Your task to perform on an android device: Go to privacy settings Image 0: 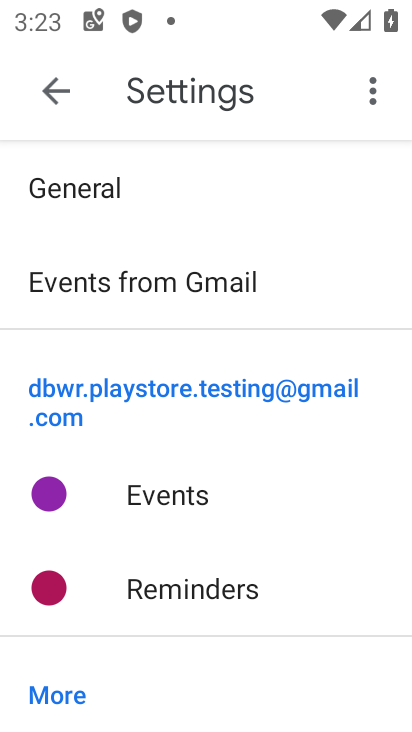
Step 0: press home button
Your task to perform on an android device: Go to privacy settings Image 1: 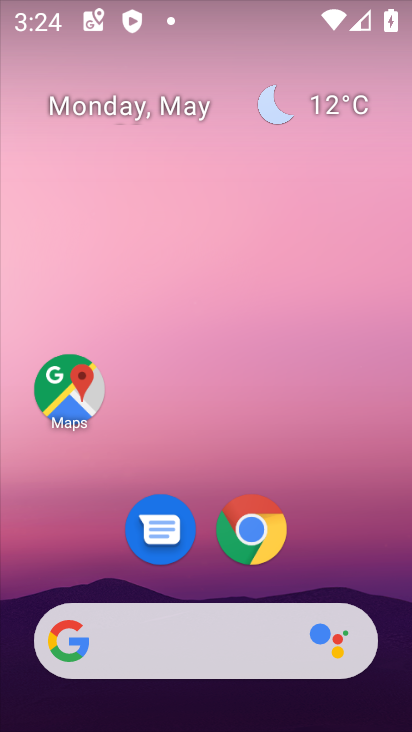
Step 1: drag from (330, 492) to (301, 7)
Your task to perform on an android device: Go to privacy settings Image 2: 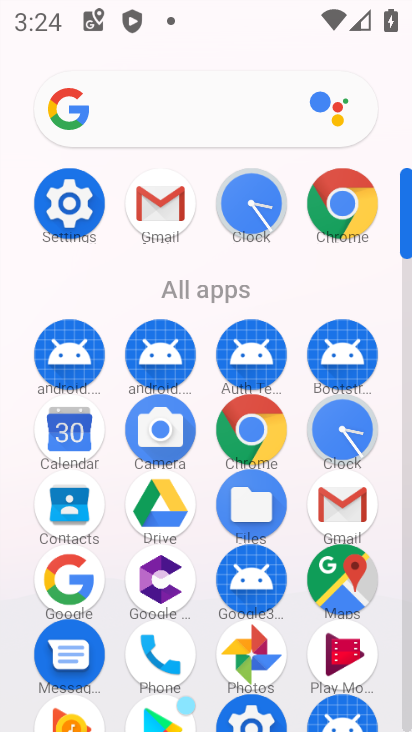
Step 2: click (82, 193)
Your task to perform on an android device: Go to privacy settings Image 3: 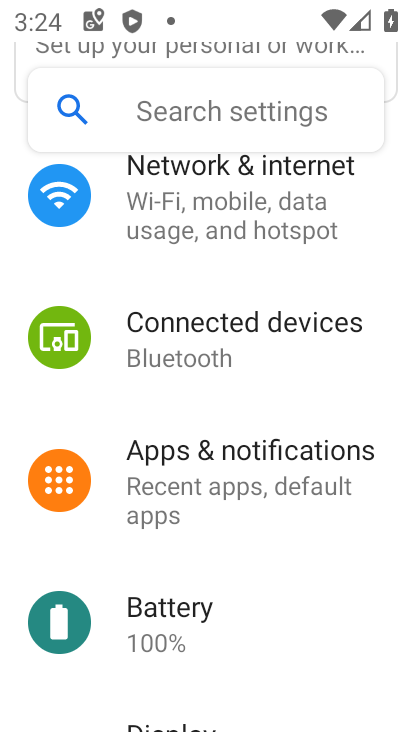
Step 3: drag from (251, 255) to (307, 718)
Your task to perform on an android device: Go to privacy settings Image 4: 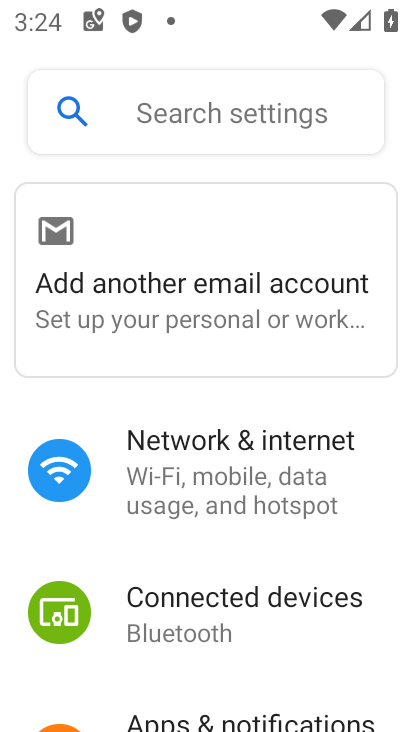
Step 4: drag from (260, 550) to (314, 123)
Your task to perform on an android device: Go to privacy settings Image 5: 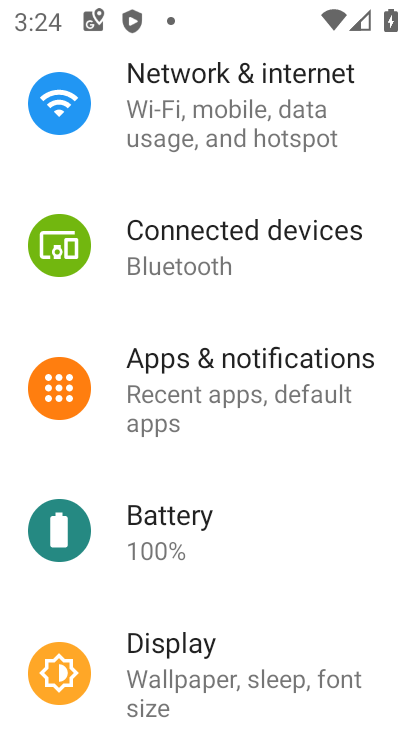
Step 5: drag from (299, 547) to (323, 81)
Your task to perform on an android device: Go to privacy settings Image 6: 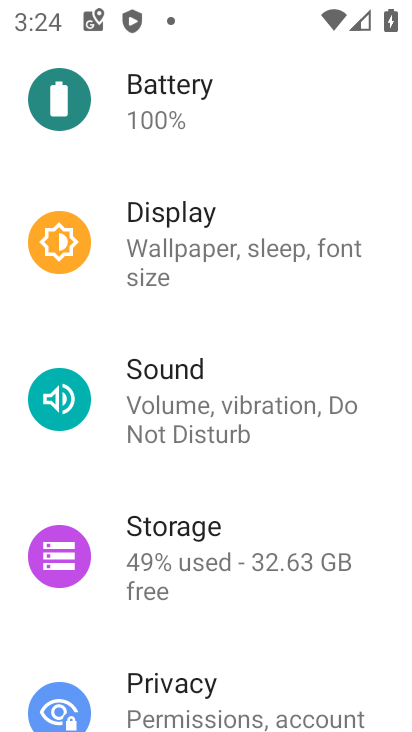
Step 6: click (184, 681)
Your task to perform on an android device: Go to privacy settings Image 7: 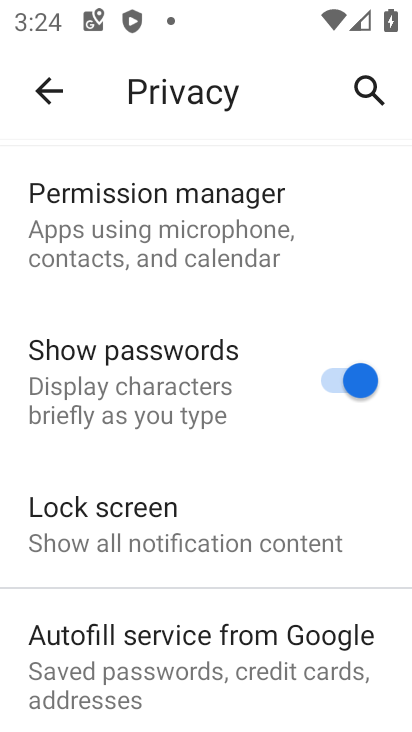
Step 7: task complete